Your task to perform on an android device: Toggle the flashlight Image 0: 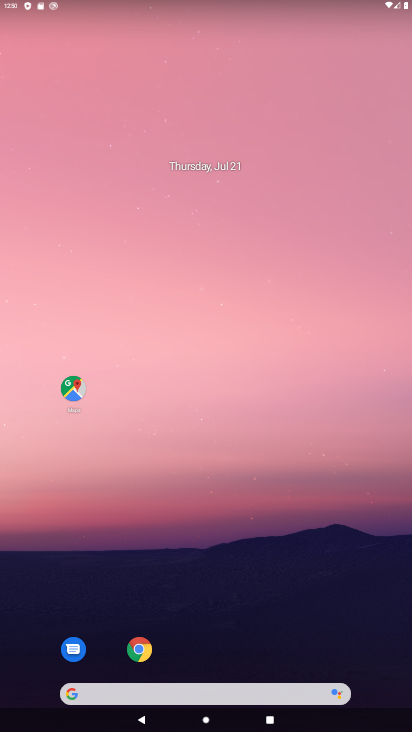
Step 0: drag from (243, 5) to (307, 539)
Your task to perform on an android device: Toggle the flashlight Image 1: 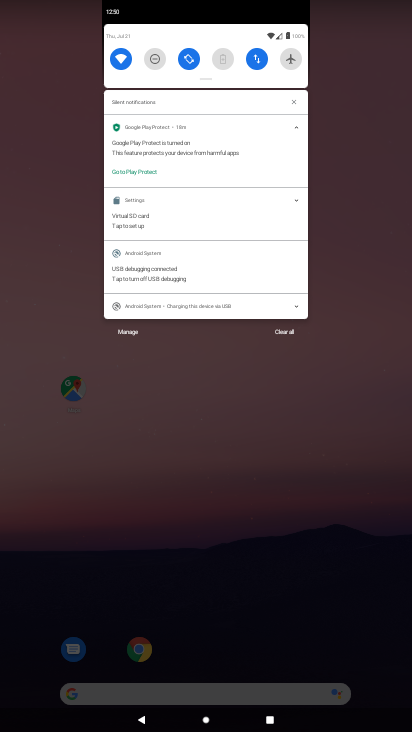
Step 1: drag from (195, 55) to (243, 303)
Your task to perform on an android device: Toggle the flashlight Image 2: 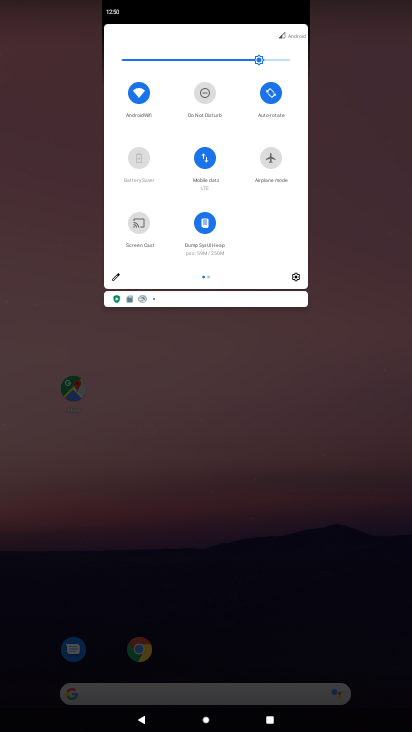
Step 2: click (119, 281)
Your task to perform on an android device: Toggle the flashlight Image 3: 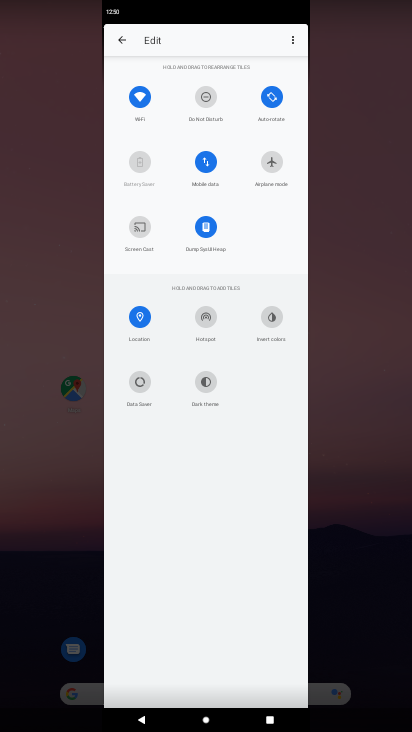
Step 3: task complete